Your task to perform on an android device: Go to Wikipedia Image 0: 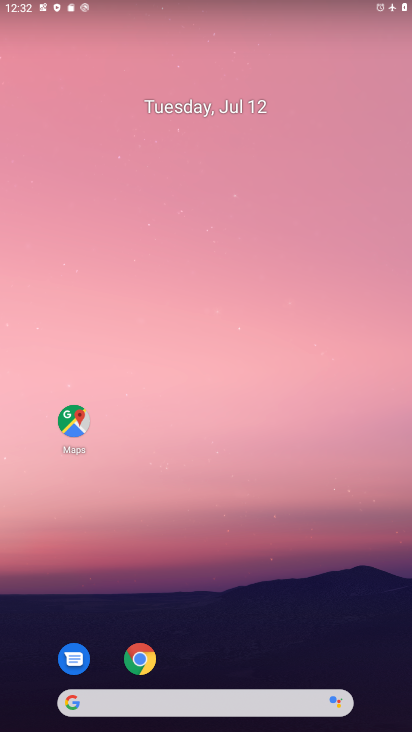
Step 0: drag from (174, 675) to (220, 217)
Your task to perform on an android device: Go to Wikipedia Image 1: 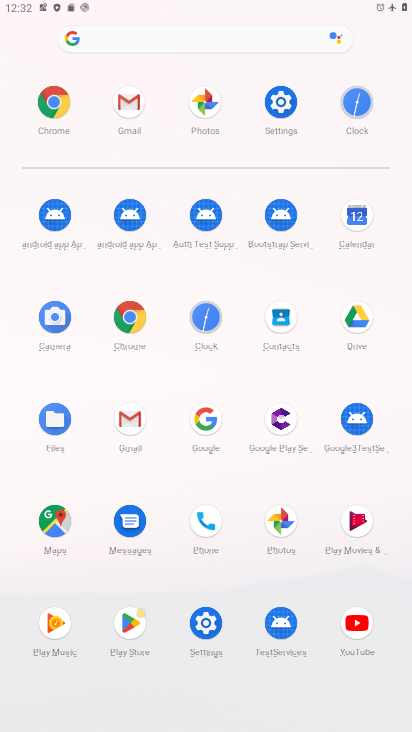
Step 1: click (282, 105)
Your task to perform on an android device: Go to Wikipedia Image 2: 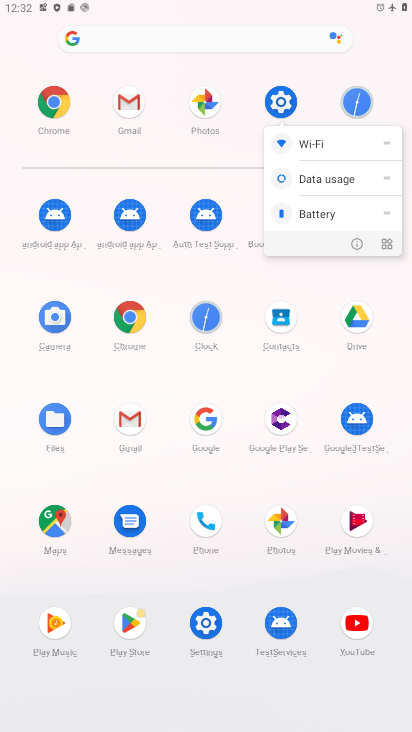
Step 2: click (355, 243)
Your task to perform on an android device: Go to Wikipedia Image 3: 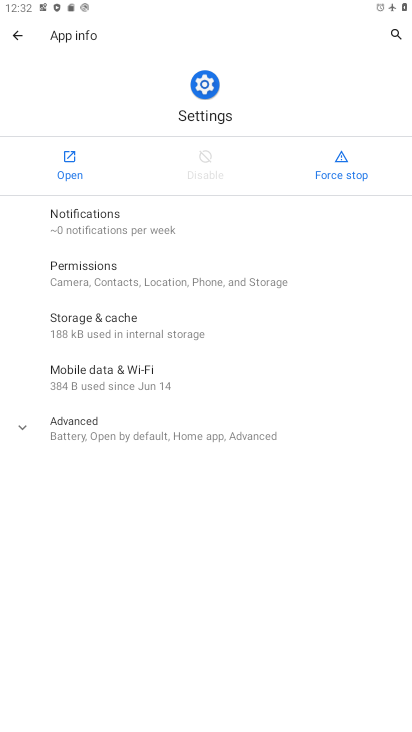
Step 3: click (65, 176)
Your task to perform on an android device: Go to Wikipedia Image 4: 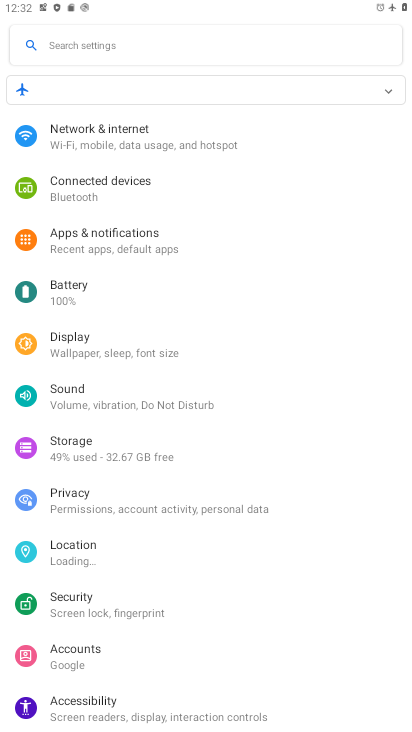
Step 4: drag from (244, 611) to (271, 335)
Your task to perform on an android device: Go to Wikipedia Image 5: 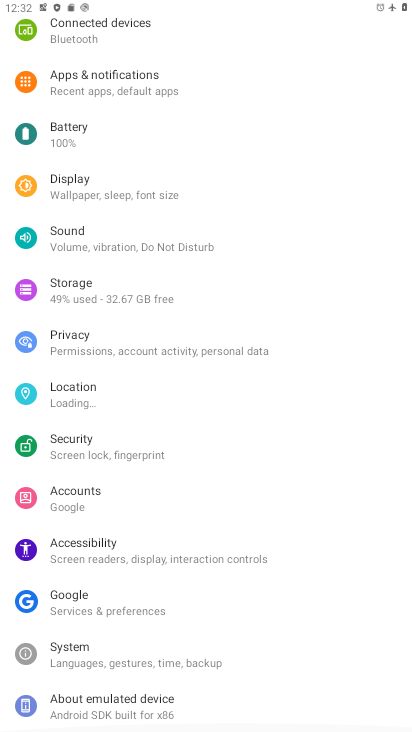
Step 5: drag from (292, 284) to (371, 568)
Your task to perform on an android device: Go to Wikipedia Image 6: 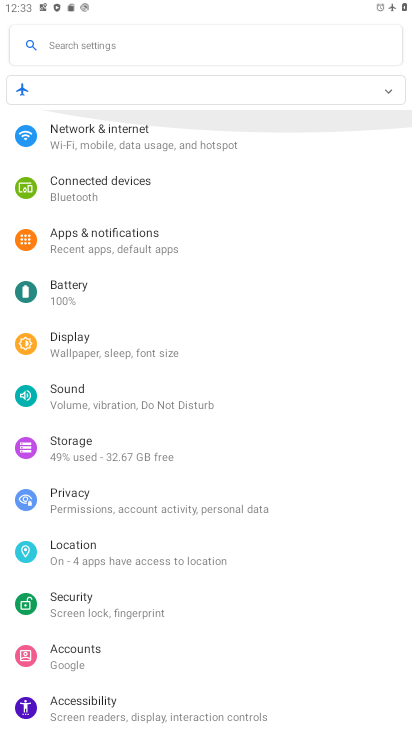
Step 6: press home button
Your task to perform on an android device: Go to Wikipedia Image 7: 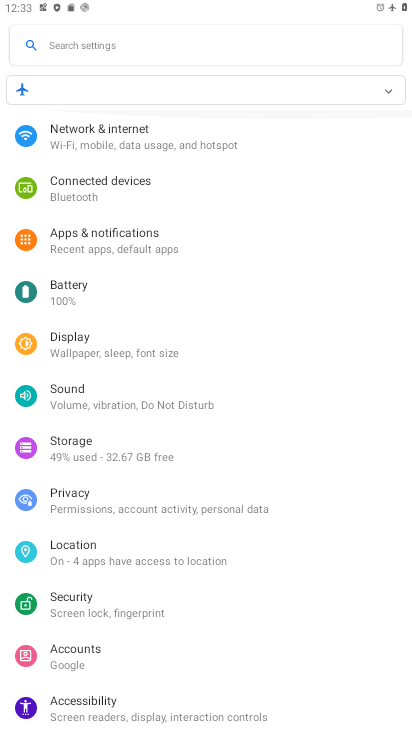
Step 7: press home button
Your task to perform on an android device: Go to Wikipedia Image 8: 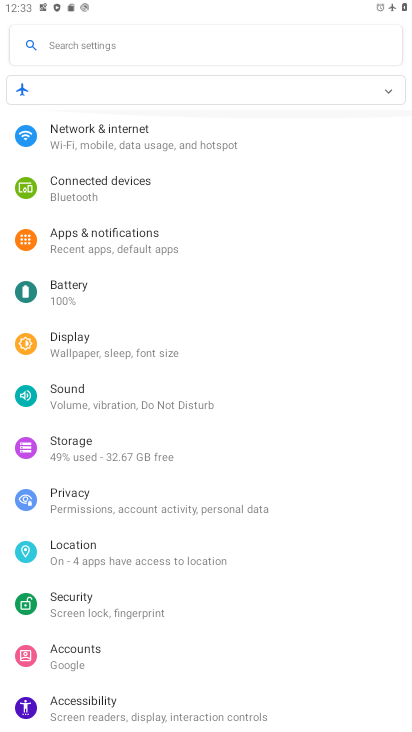
Step 8: click (233, 157)
Your task to perform on an android device: Go to Wikipedia Image 9: 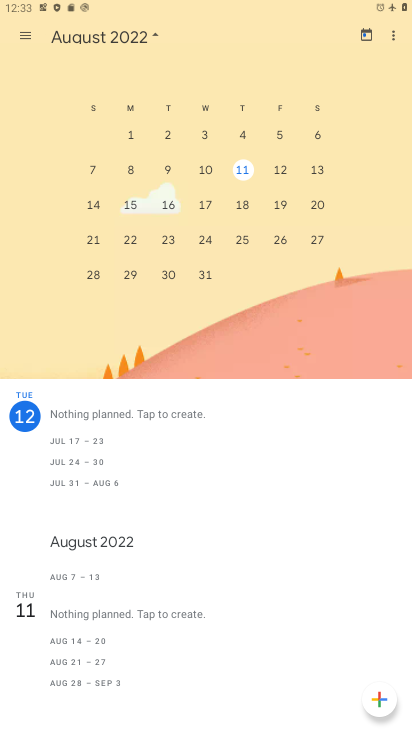
Step 9: drag from (197, 610) to (252, 76)
Your task to perform on an android device: Go to Wikipedia Image 10: 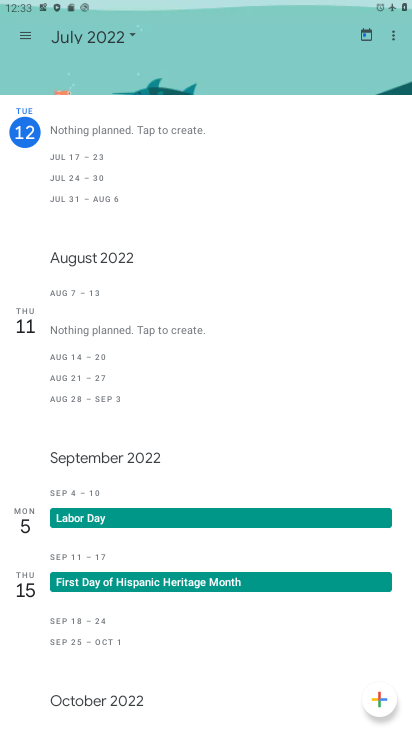
Step 10: press home button
Your task to perform on an android device: Go to Wikipedia Image 11: 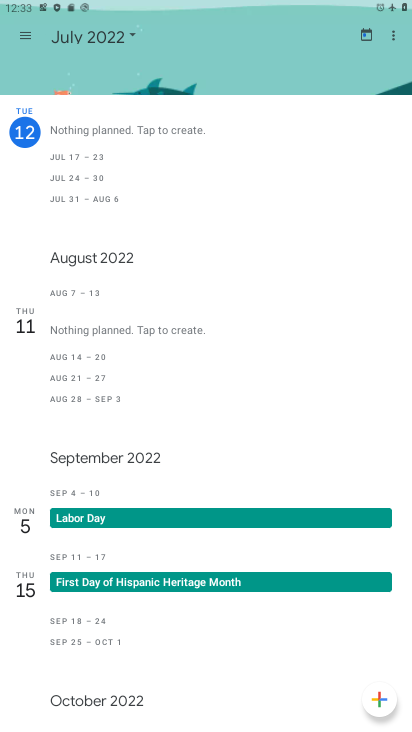
Step 11: press home button
Your task to perform on an android device: Go to Wikipedia Image 12: 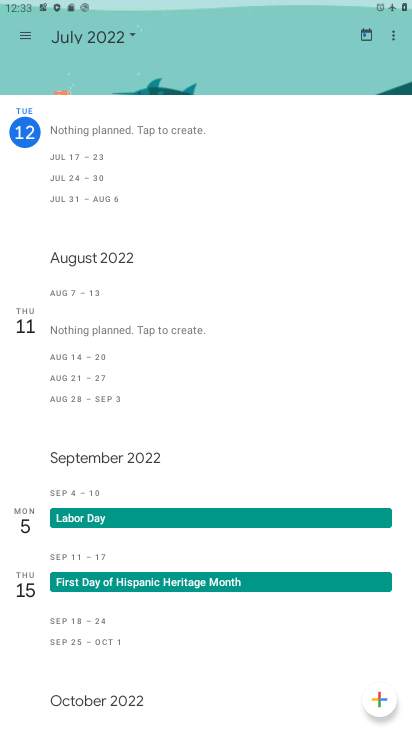
Step 12: drag from (183, 672) to (243, 176)
Your task to perform on an android device: Go to Wikipedia Image 13: 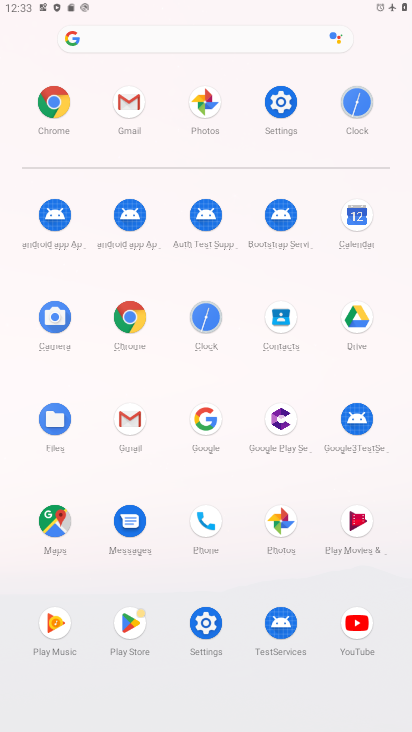
Step 13: click (156, 36)
Your task to perform on an android device: Go to Wikipedia Image 14: 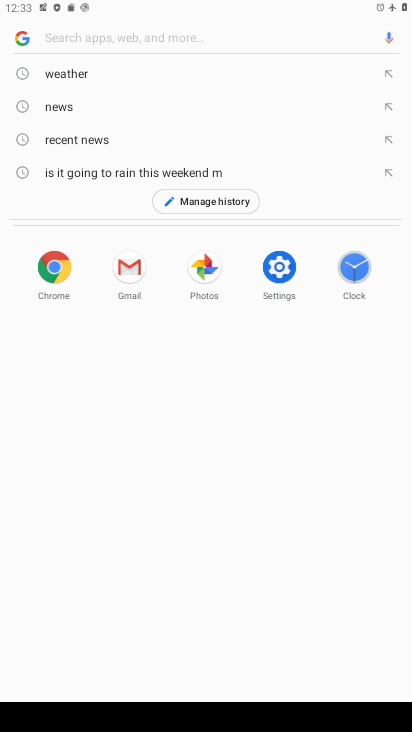
Step 14: type "Wikipedia"
Your task to perform on an android device: Go to Wikipedia Image 15: 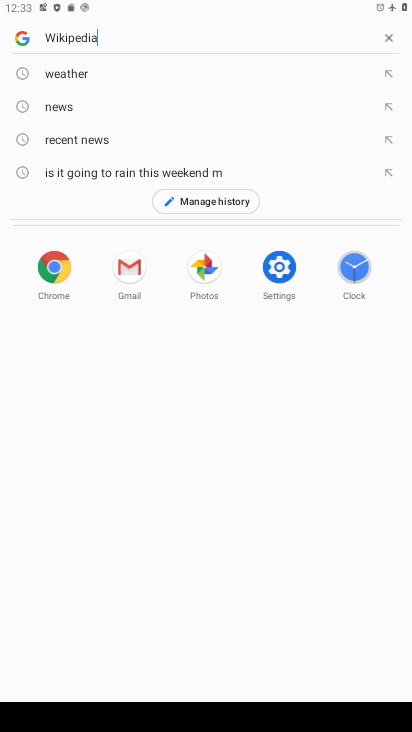
Step 15: type ""
Your task to perform on an android device: Go to Wikipedia Image 16: 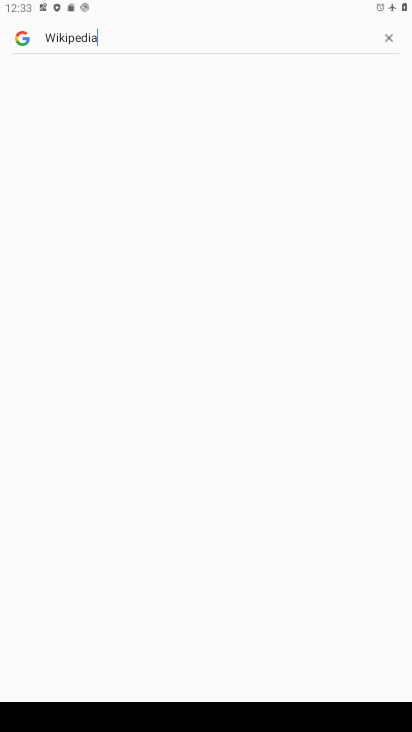
Step 16: click (183, 160)
Your task to perform on an android device: Go to Wikipedia Image 17: 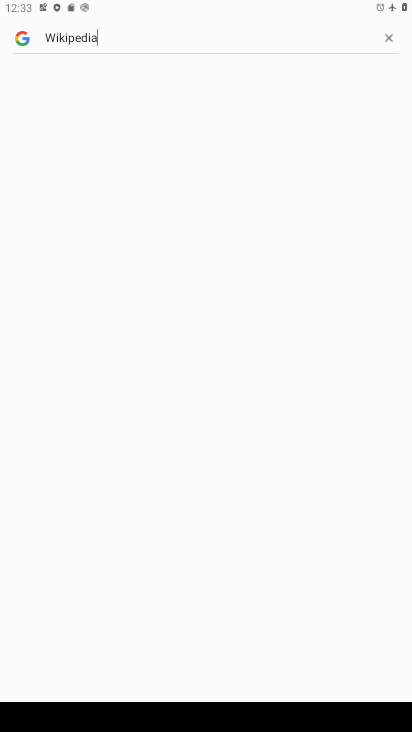
Step 17: task complete